Your task to perform on an android device: Go to Google Image 0: 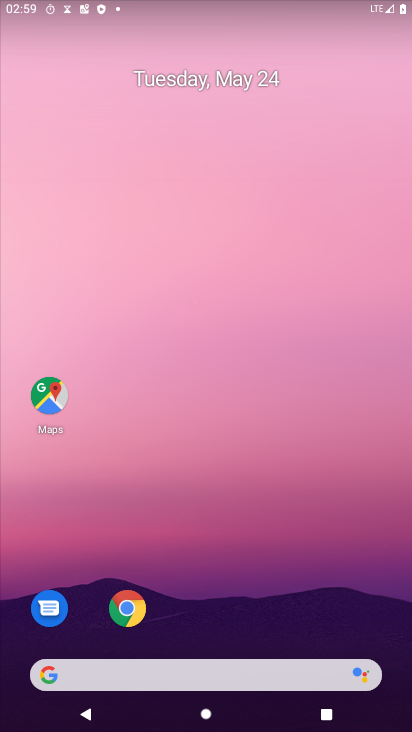
Step 0: drag from (215, 622) to (238, 283)
Your task to perform on an android device: Go to Google Image 1: 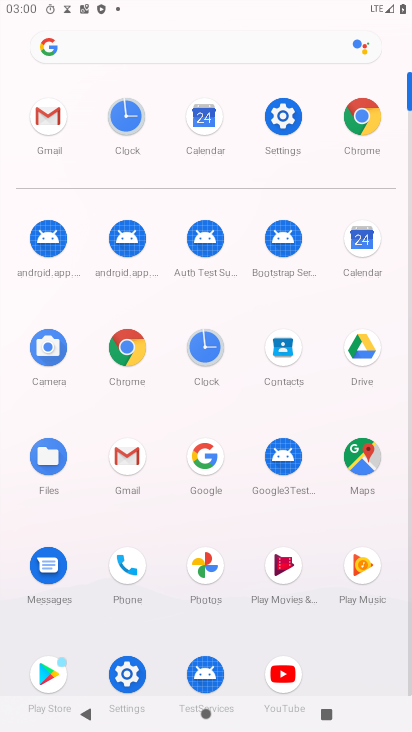
Step 1: click (212, 458)
Your task to perform on an android device: Go to Google Image 2: 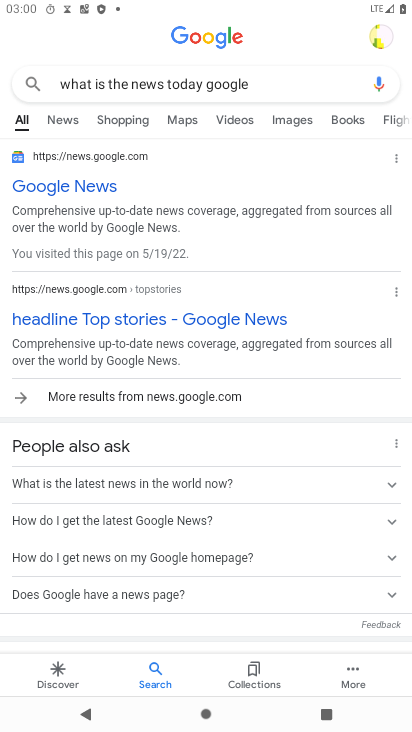
Step 2: task complete